Your task to perform on an android device: change notifications settings Image 0: 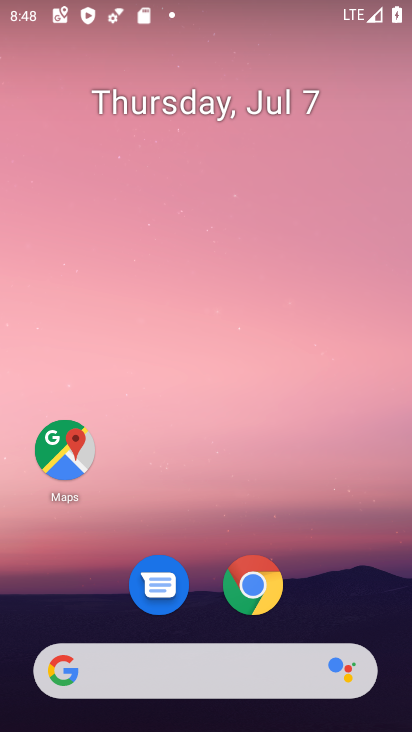
Step 0: drag from (211, 506) to (253, 21)
Your task to perform on an android device: change notifications settings Image 1: 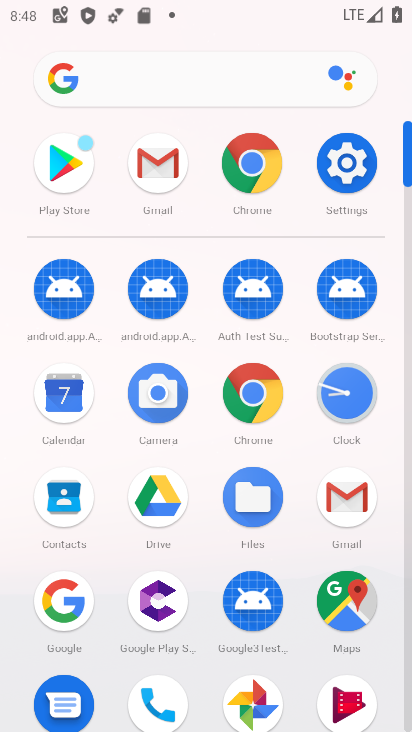
Step 1: click (350, 167)
Your task to perform on an android device: change notifications settings Image 2: 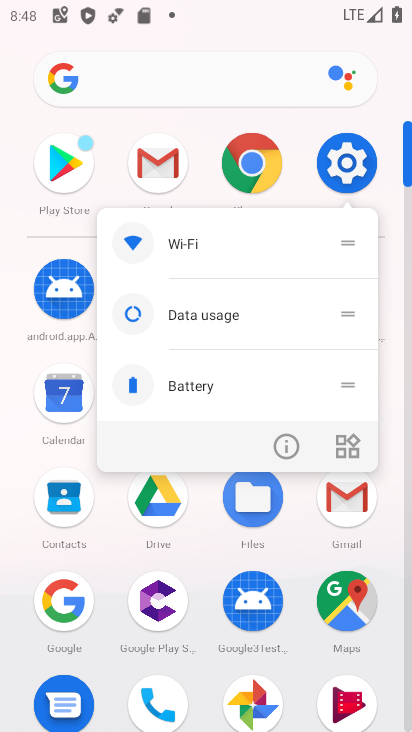
Step 2: click (347, 159)
Your task to perform on an android device: change notifications settings Image 3: 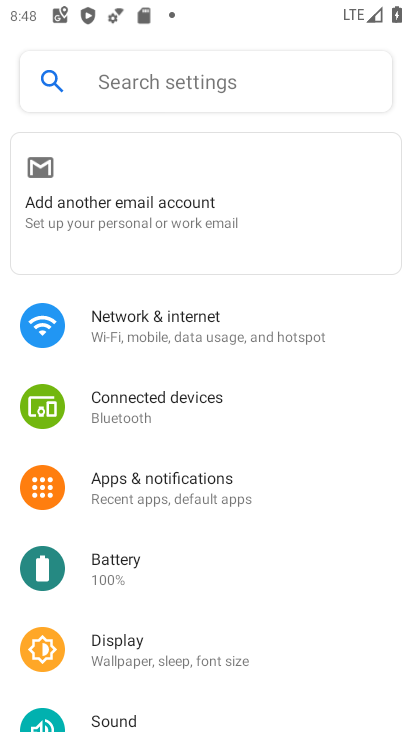
Step 3: click (184, 481)
Your task to perform on an android device: change notifications settings Image 4: 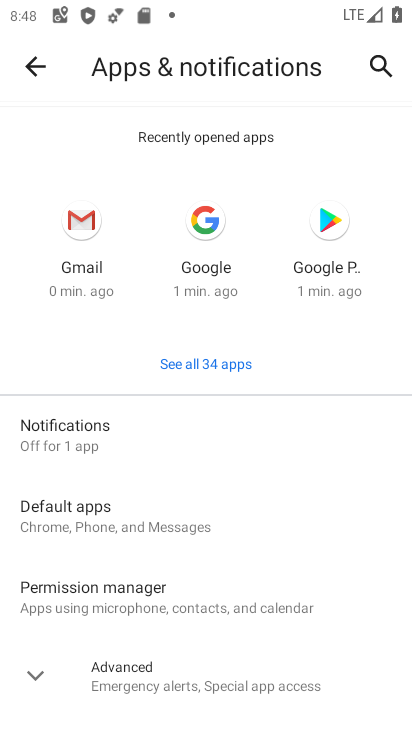
Step 4: click (101, 426)
Your task to perform on an android device: change notifications settings Image 5: 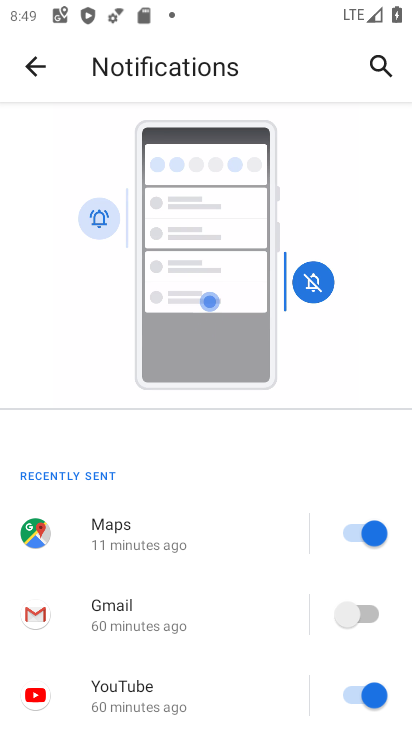
Step 5: drag from (239, 498) to (252, 108)
Your task to perform on an android device: change notifications settings Image 6: 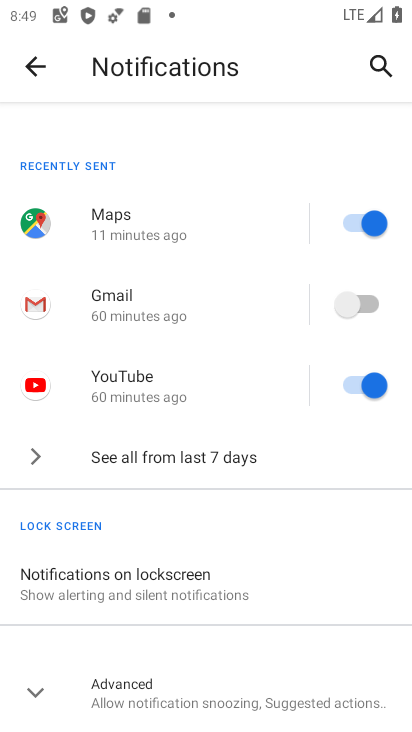
Step 6: click (200, 453)
Your task to perform on an android device: change notifications settings Image 7: 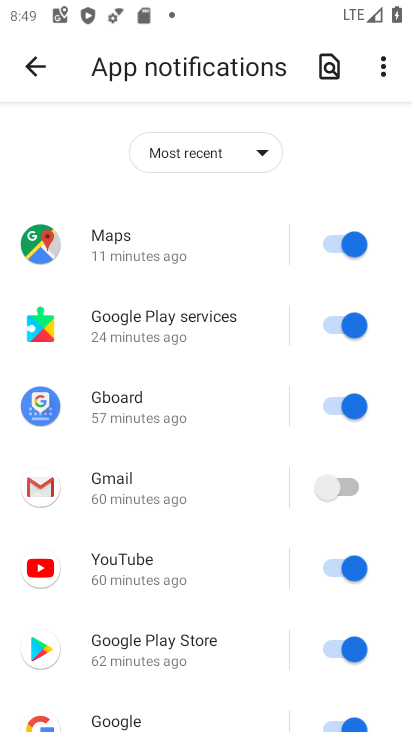
Step 7: click (349, 244)
Your task to perform on an android device: change notifications settings Image 8: 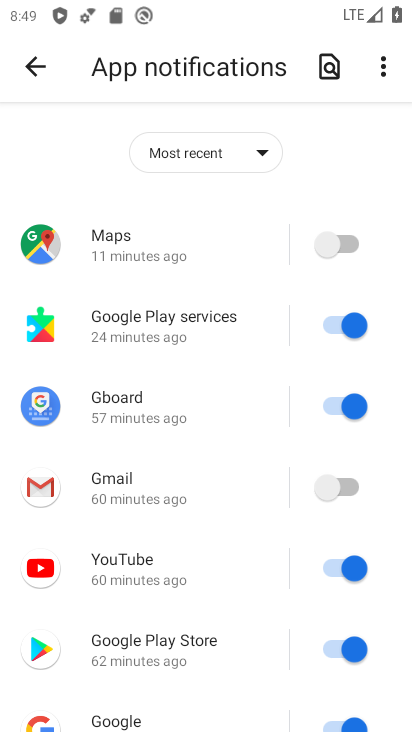
Step 8: click (340, 323)
Your task to perform on an android device: change notifications settings Image 9: 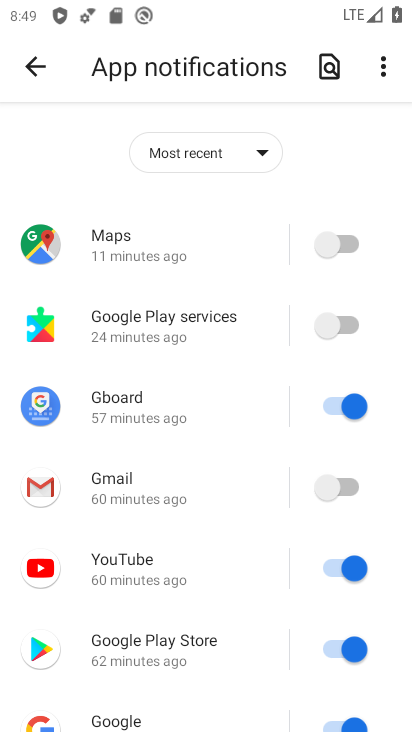
Step 9: click (340, 405)
Your task to perform on an android device: change notifications settings Image 10: 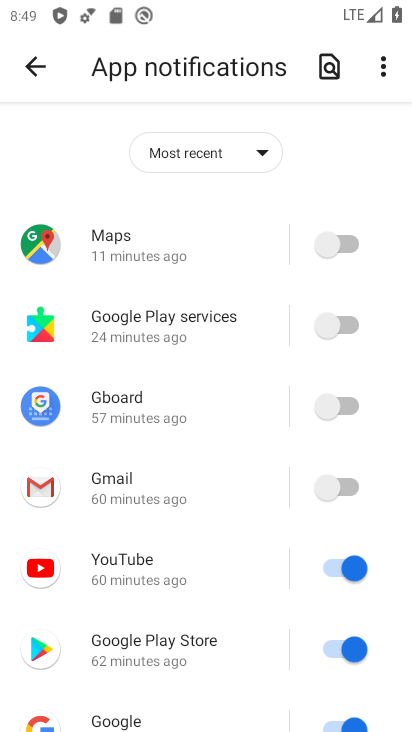
Step 10: click (335, 483)
Your task to perform on an android device: change notifications settings Image 11: 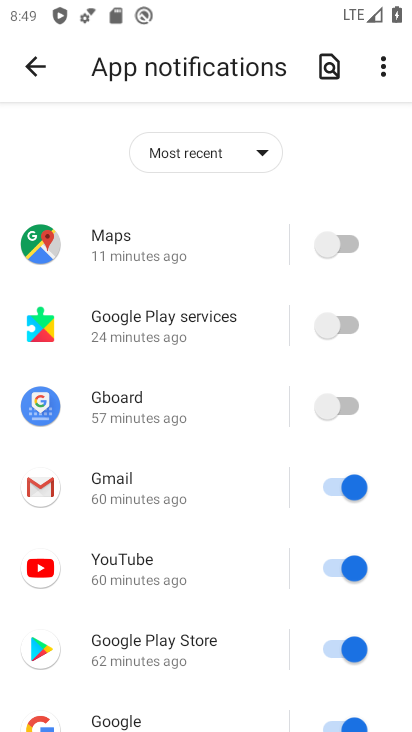
Step 11: click (334, 563)
Your task to perform on an android device: change notifications settings Image 12: 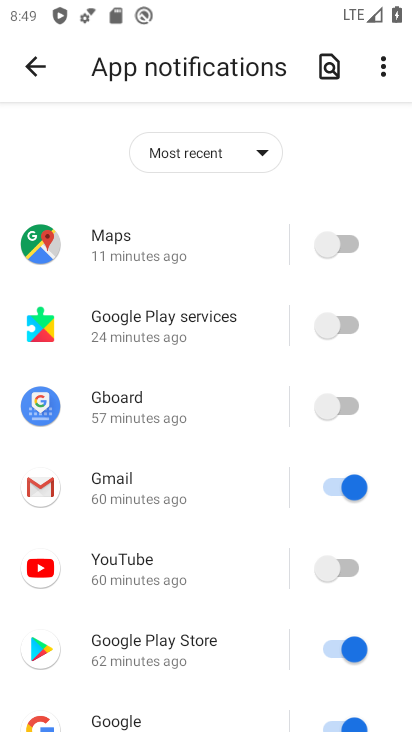
Step 12: click (340, 644)
Your task to perform on an android device: change notifications settings Image 13: 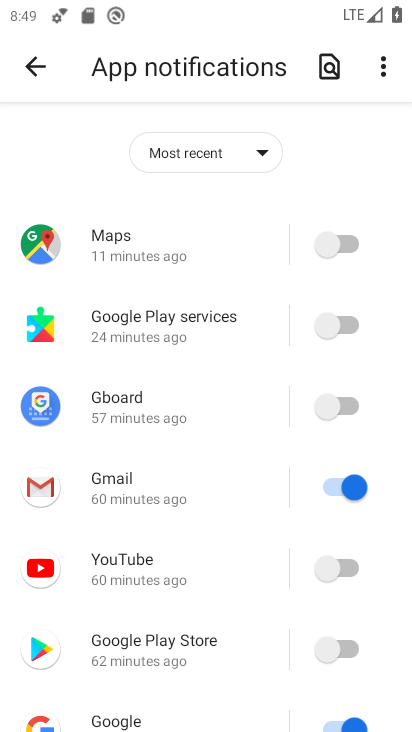
Step 13: drag from (222, 594) to (242, 122)
Your task to perform on an android device: change notifications settings Image 14: 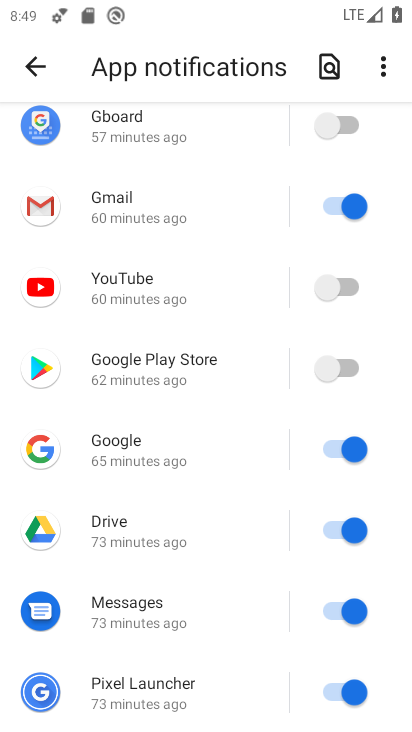
Step 14: click (348, 440)
Your task to perform on an android device: change notifications settings Image 15: 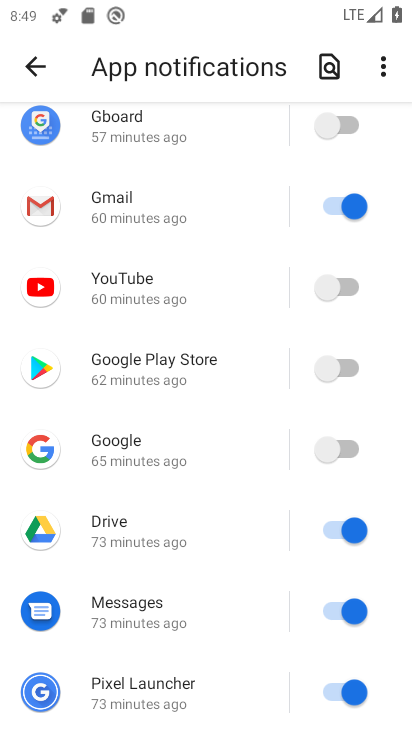
Step 15: click (348, 529)
Your task to perform on an android device: change notifications settings Image 16: 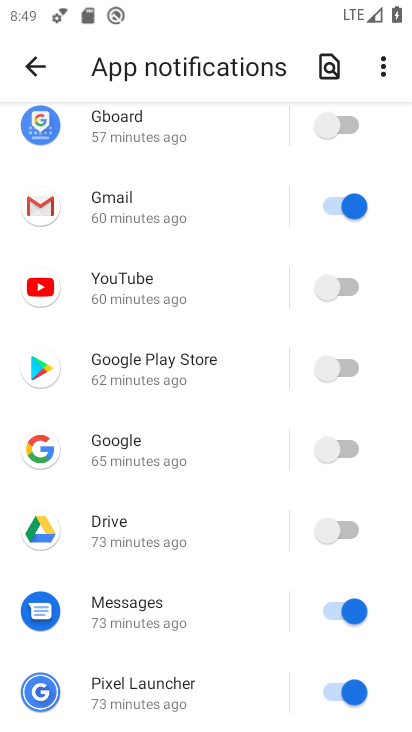
Step 16: click (348, 607)
Your task to perform on an android device: change notifications settings Image 17: 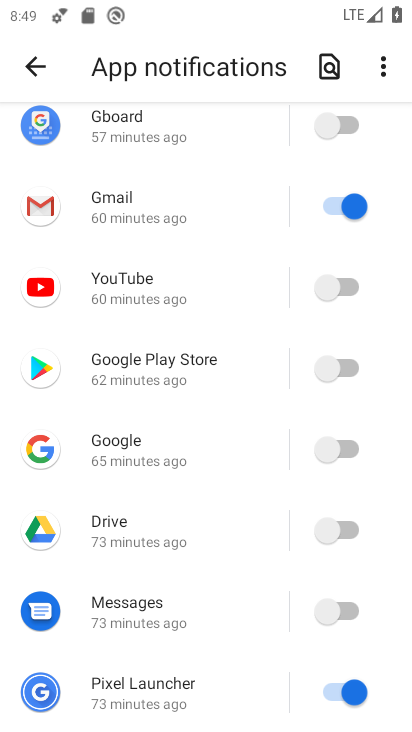
Step 17: click (338, 689)
Your task to perform on an android device: change notifications settings Image 18: 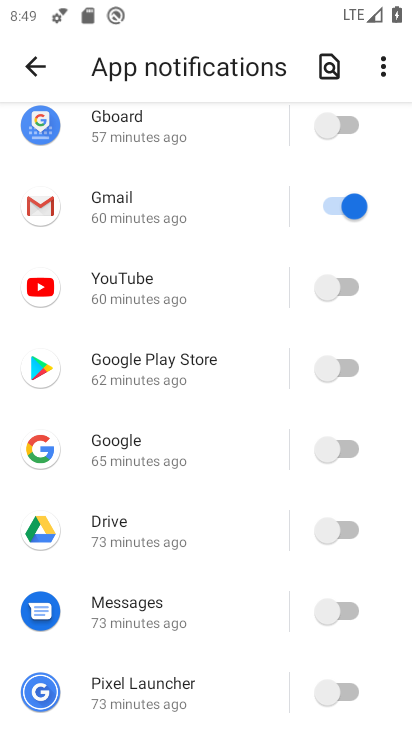
Step 18: click (34, 62)
Your task to perform on an android device: change notifications settings Image 19: 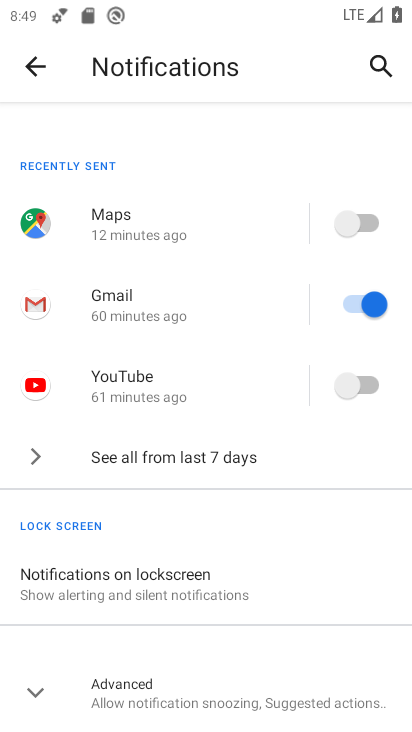
Step 19: click (34, 62)
Your task to perform on an android device: change notifications settings Image 20: 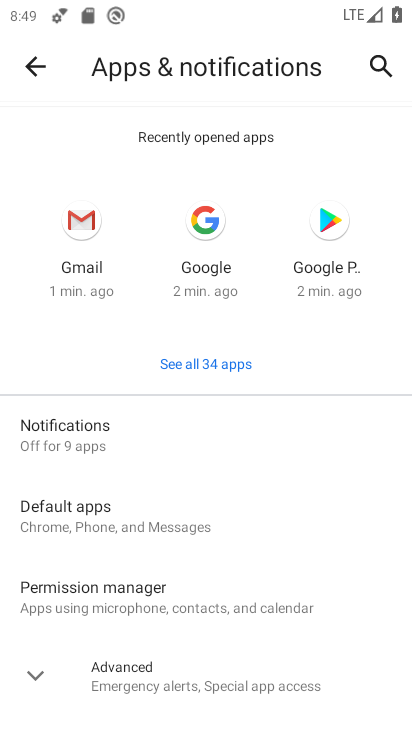
Step 20: click (34, 64)
Your task to perform on an android device: change notifications settings Image 21: 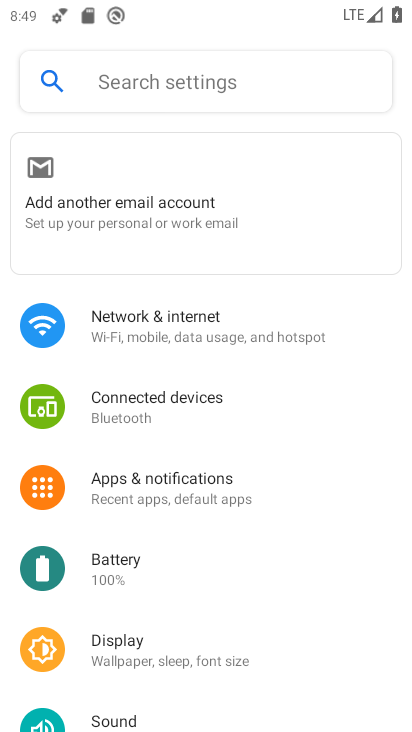
Step 21: task complete